Your task to perform on an android device: When is my next appointment? Image 0: 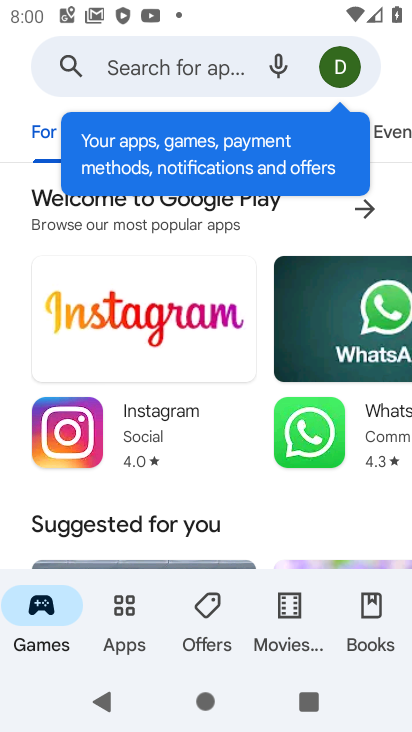
Step 0: press home button
Your task to perform on an android device: When is my next appointment? Image 1: 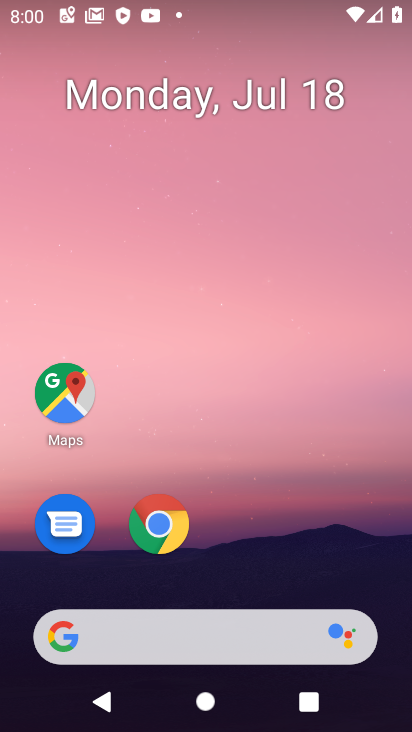
Step 1: drag from (307, 547) to (293, 71)
Your task to perform on an android device: When is my next appointment? Image 2: 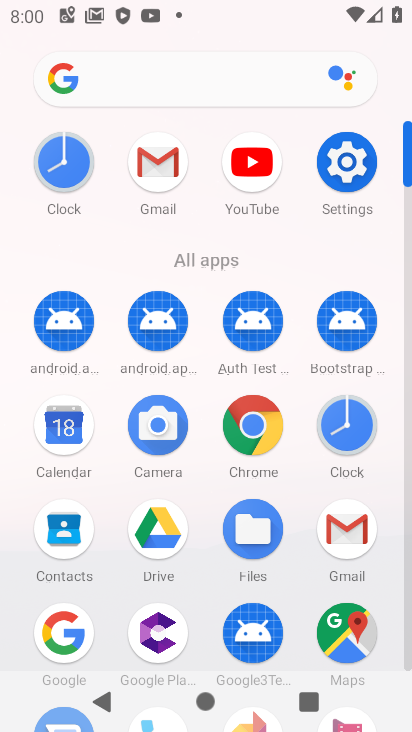
Step 2: click (69, 417)
Your task to perform on an android device: When is my next appointment? Image 3: 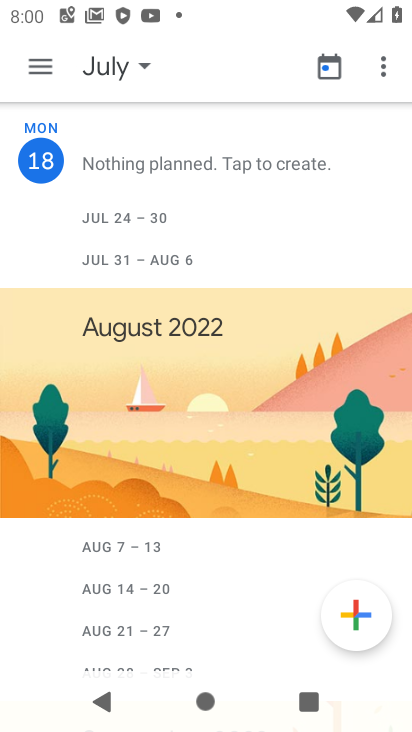
Step 3: task complete